Your task to perform on an android device: check battery use Image 0: 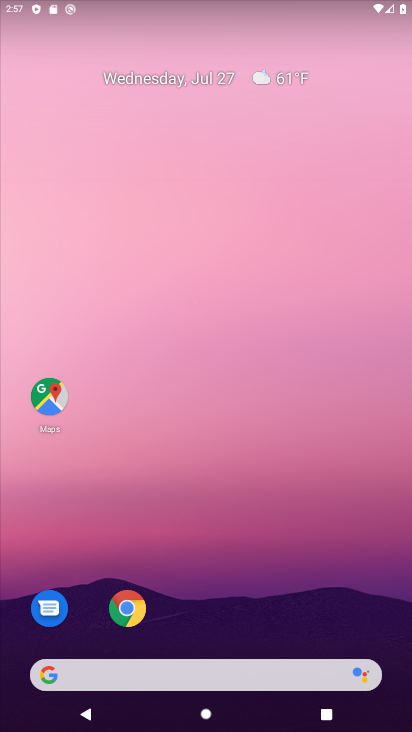
Step 0: drag from (275, 586) to (275, 49)
Your task to perform on an android device: check battery use Image 1: 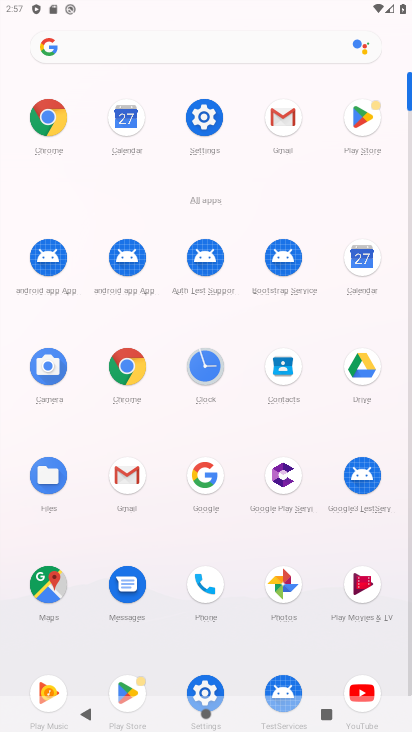
Step 1: click (195, 103)
Your task to perform on an android device: check battery use Image 2: 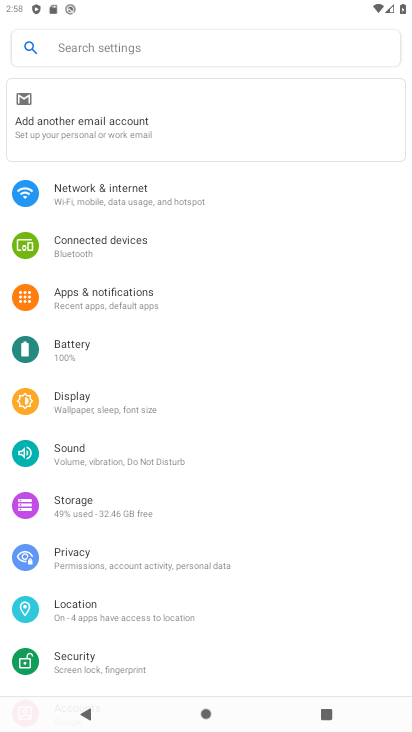
Step 2: click (117, 349)
Your task to perform on an android device: check battery use Image 3: 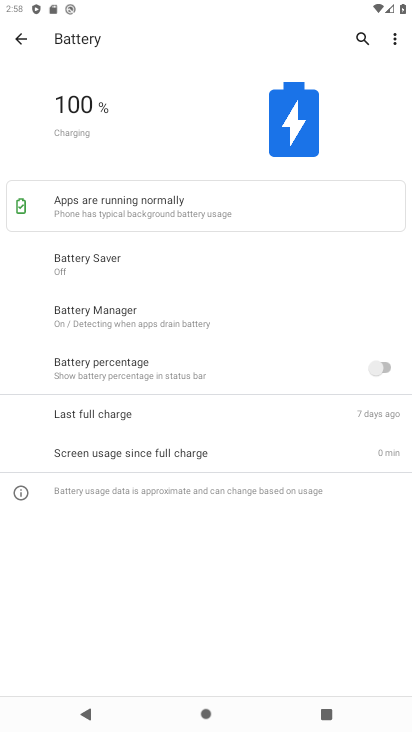
Step 3: click (391, 41)
Your task to perform on an android device: check battery use Image 4: 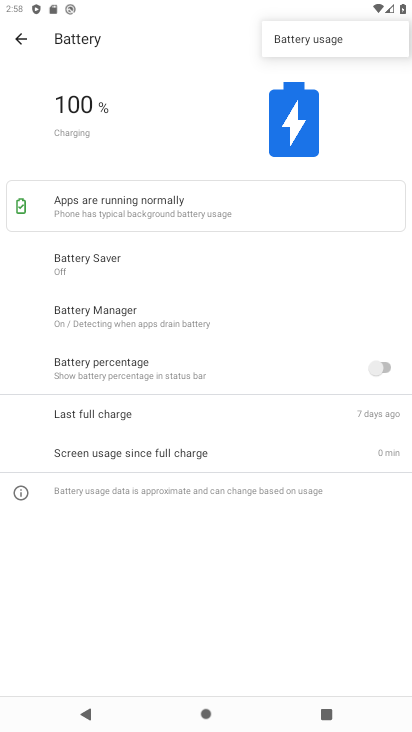
Step 4: click (328, 33)
Your task to perform on an android device: check battery use Image 5: 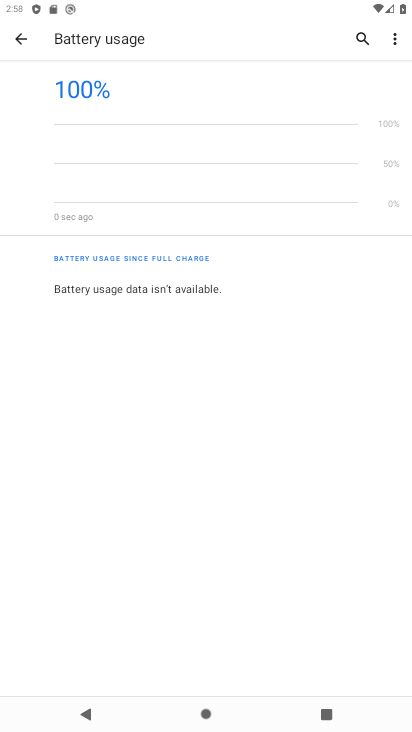
Step 5: task complete